Your task to perform on an android device: Show the shopping cart on walmart. Add razer kraken to the cart on walmart, then select checkout. Image 0: 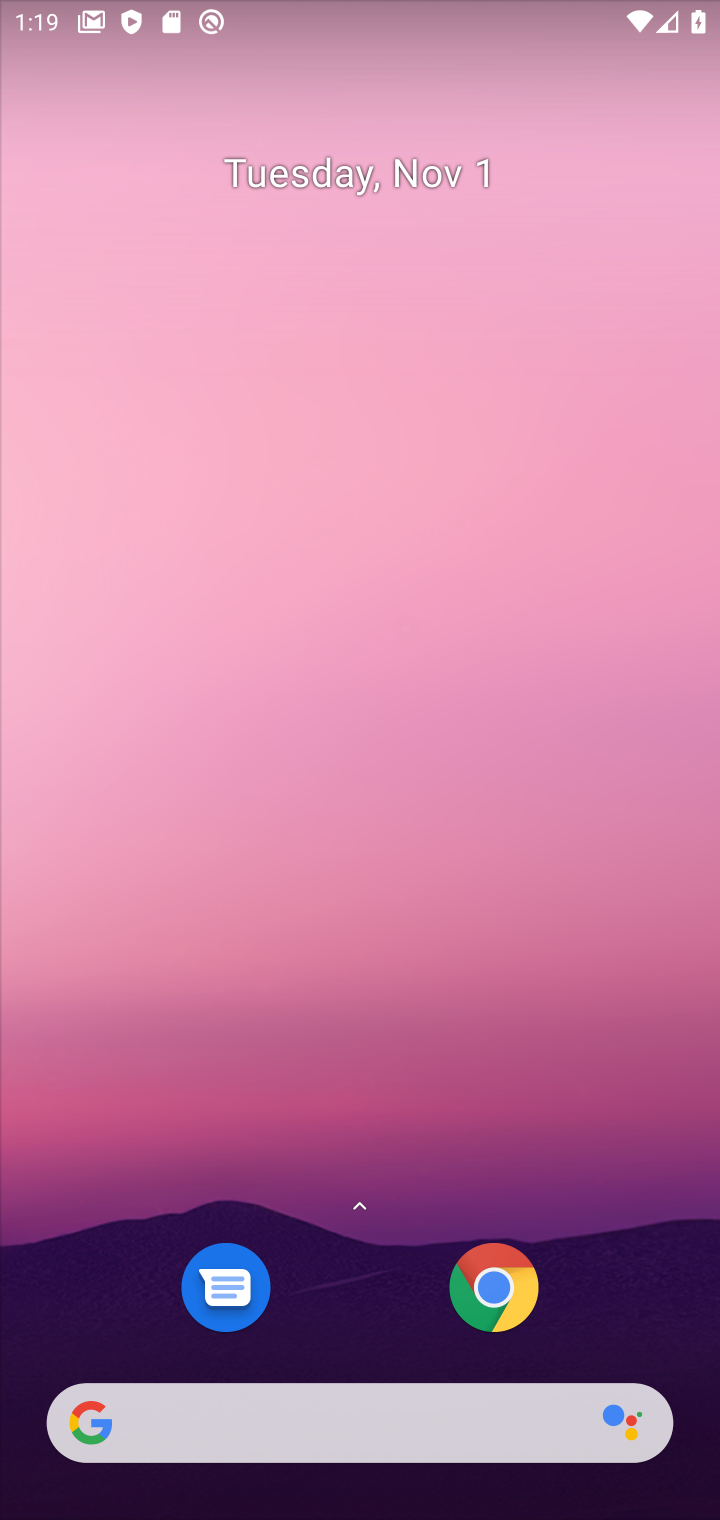
Step 0: drag from (401, 1218) to (565, 344)
Your task to perform on an android device: Show the shopping cart on walmart. Add razer kraken to the cart on walmart, then select checkout. Image 1: 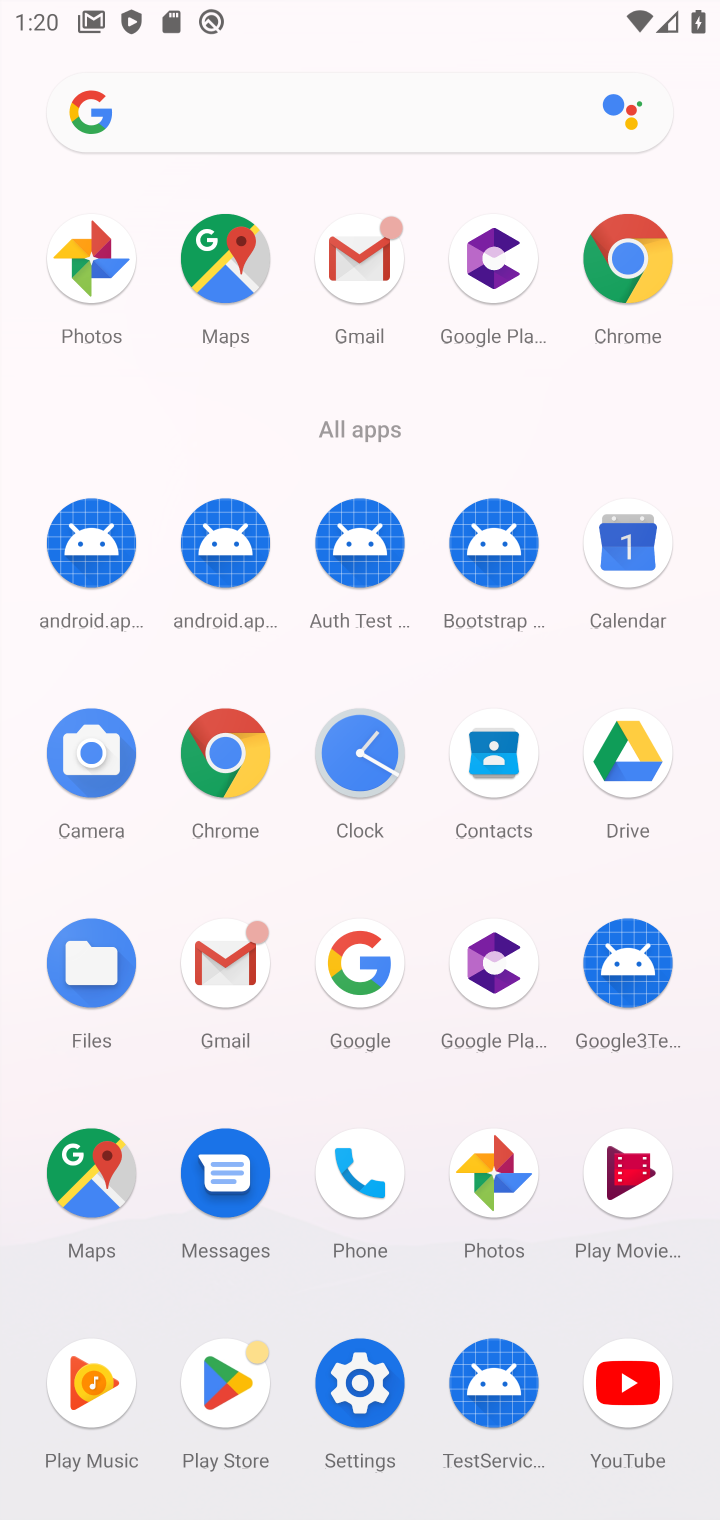
Step 1: click (231, 756)
Your task to perform on an android device: Show the shopping cart on walmart. Add razer kraken to the cart on walmart, then select checkout. Image 2: 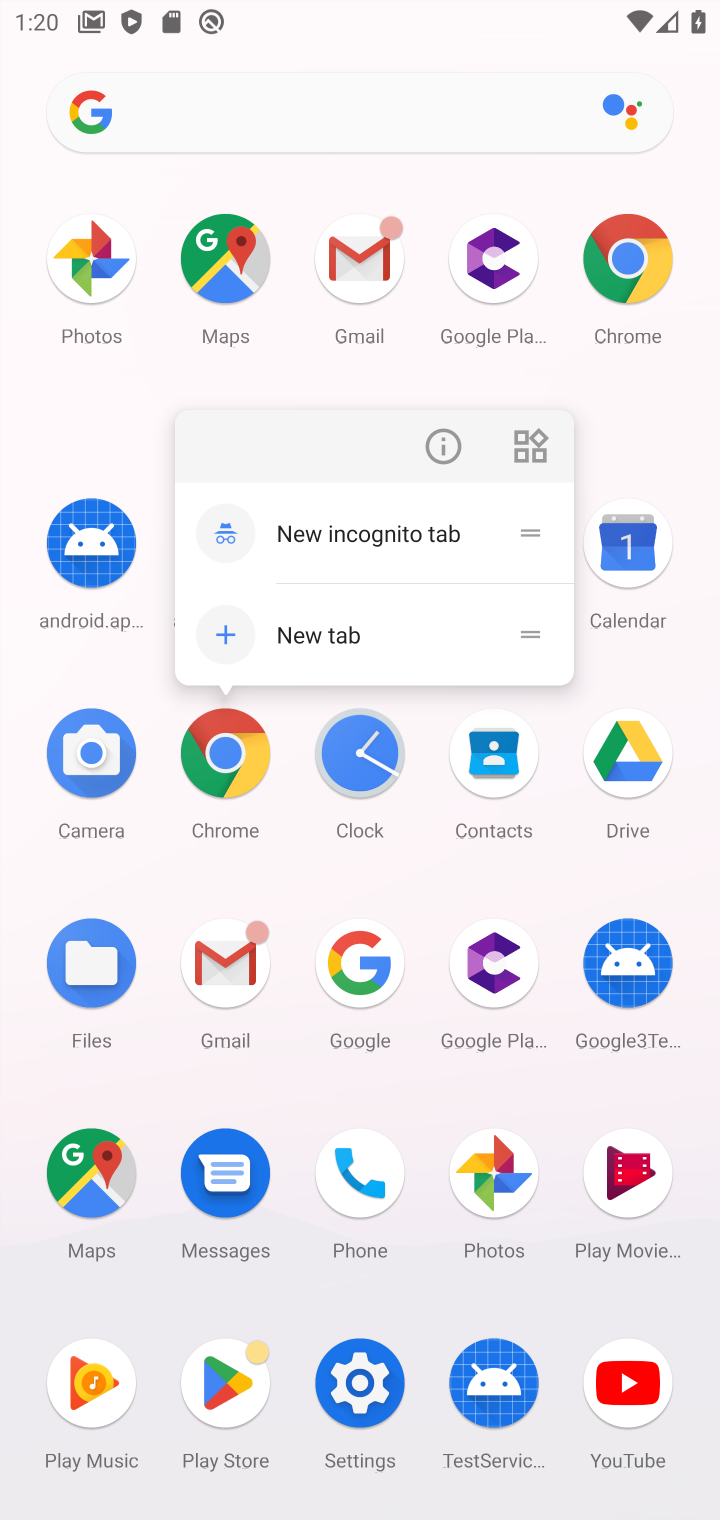
Step 2: click (221, 757)
Your task to perform on an android device: Show the shopping cart on walmart. Add razer kraken to the cart on walmart, then select checkout. Image 3: 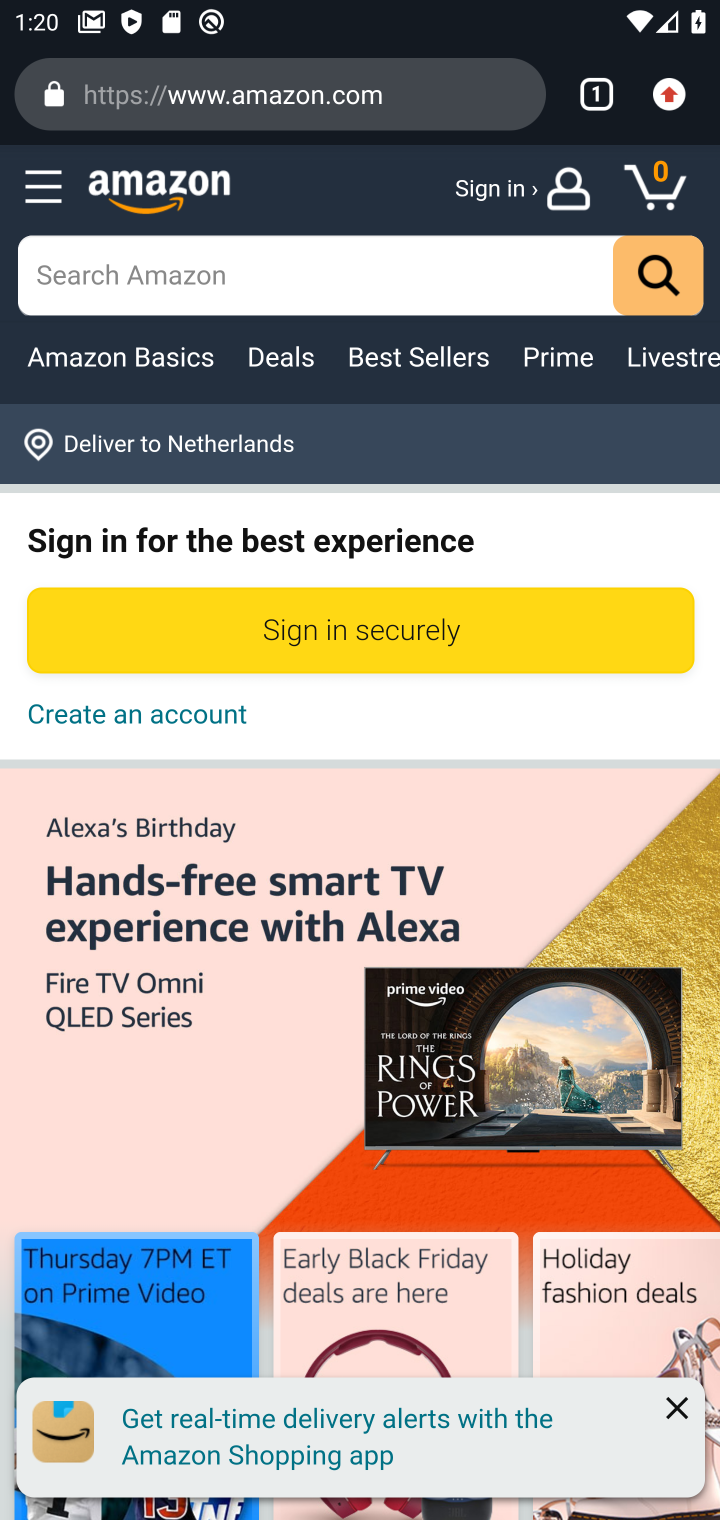
Step 3: click (358, 120)
Your task to perform on an android device: Show the shopping cart on walmart. Add razer kraken to the cart on walmart, then select checkout. Image 4: 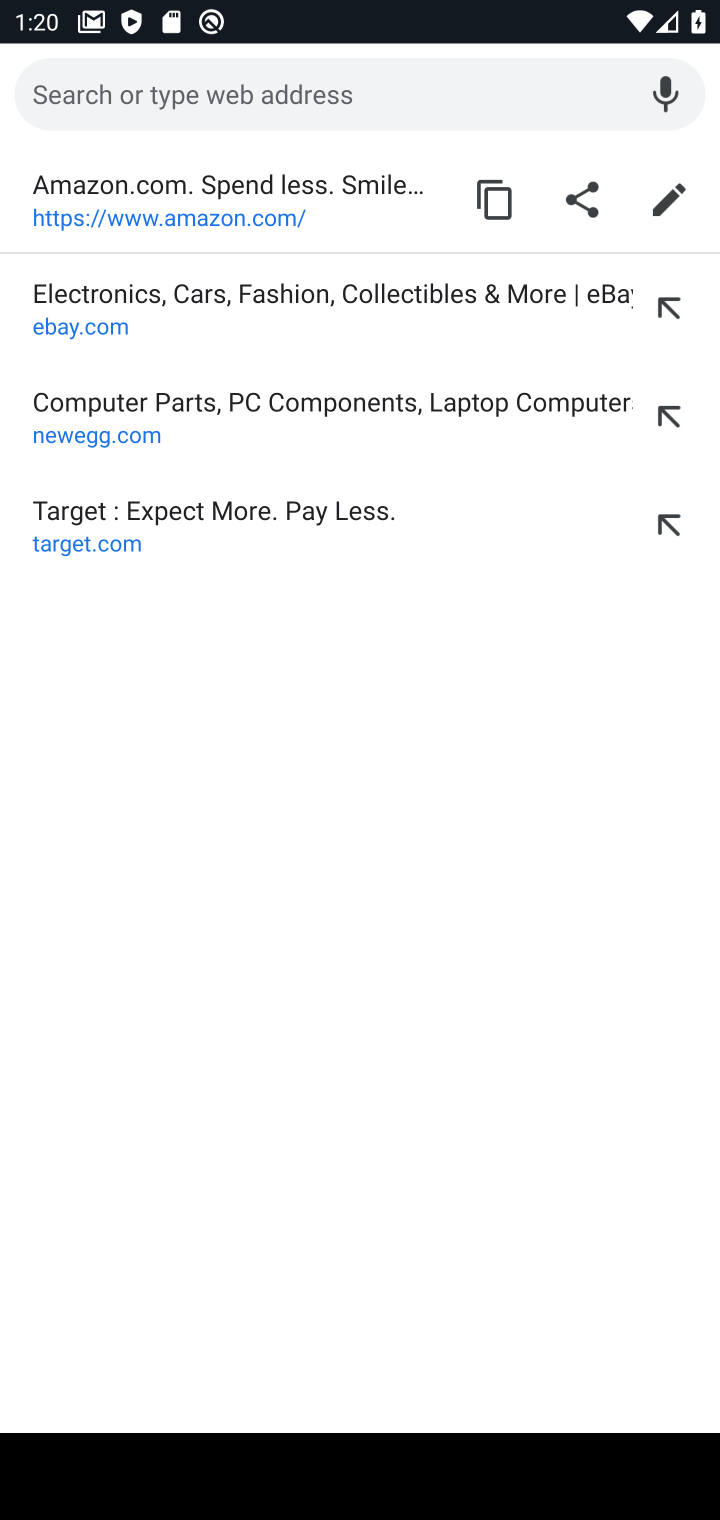
Step 4: type "walmart.com"
Your task to perform on an android device: Show the shopping cart on walmart. Add razer kraken to the cart on walmart, then select checkout. Image 5: 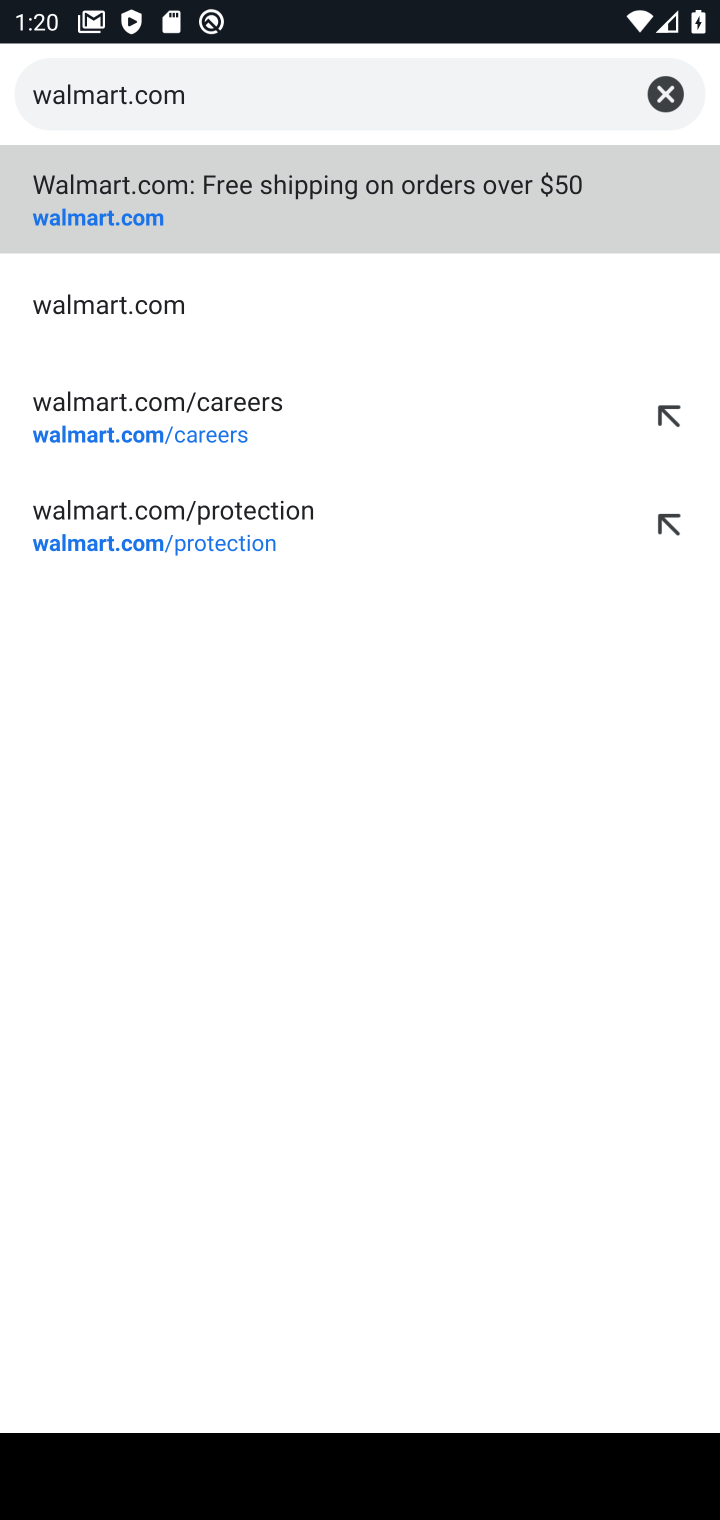
Step 5: click (154, 223)
Your task to perform on an android device: Show the shopping cart on walmart. Add razer kraken to the cart on walmart, then select checkout. Image 6: 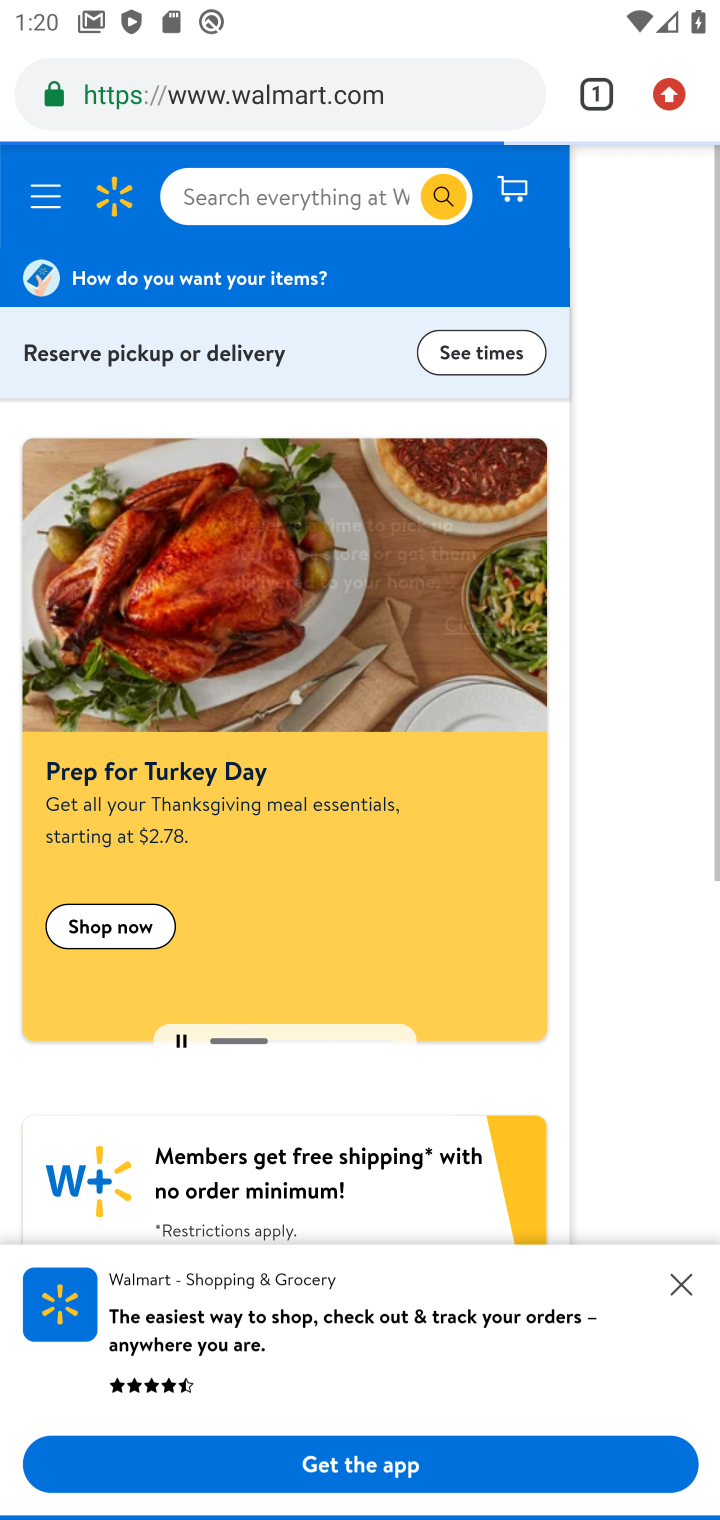
Step 6: click (401, 210)
Your task to perform on an android device: Show the shopping cart on walmart. Add razer kraken to the cart on walmart, then select checkout. Image 7: 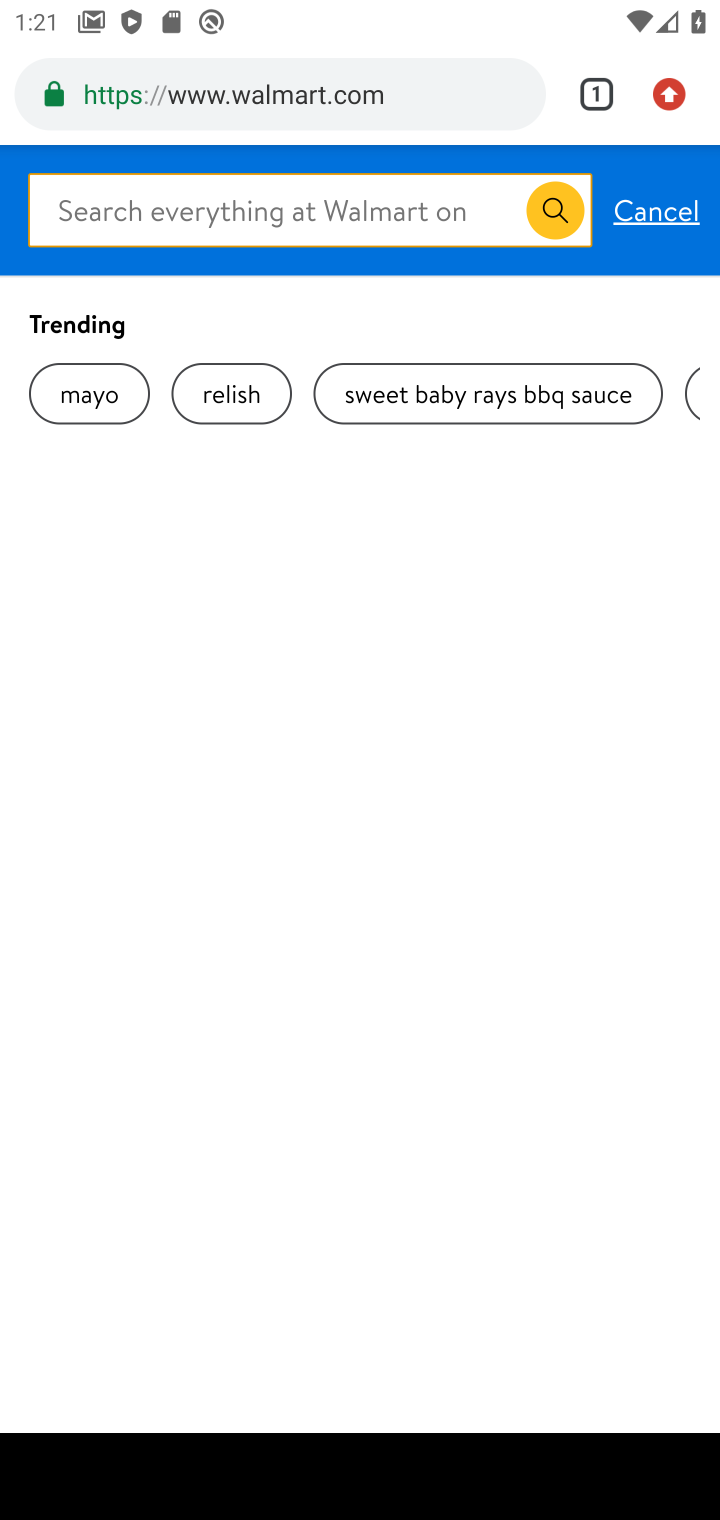
Step 7: type "razer "
Your task to perform on an android device: Show the shopping cart on walmart. Add razer kraken to the cart on walmart, then select checkout. Image 8: 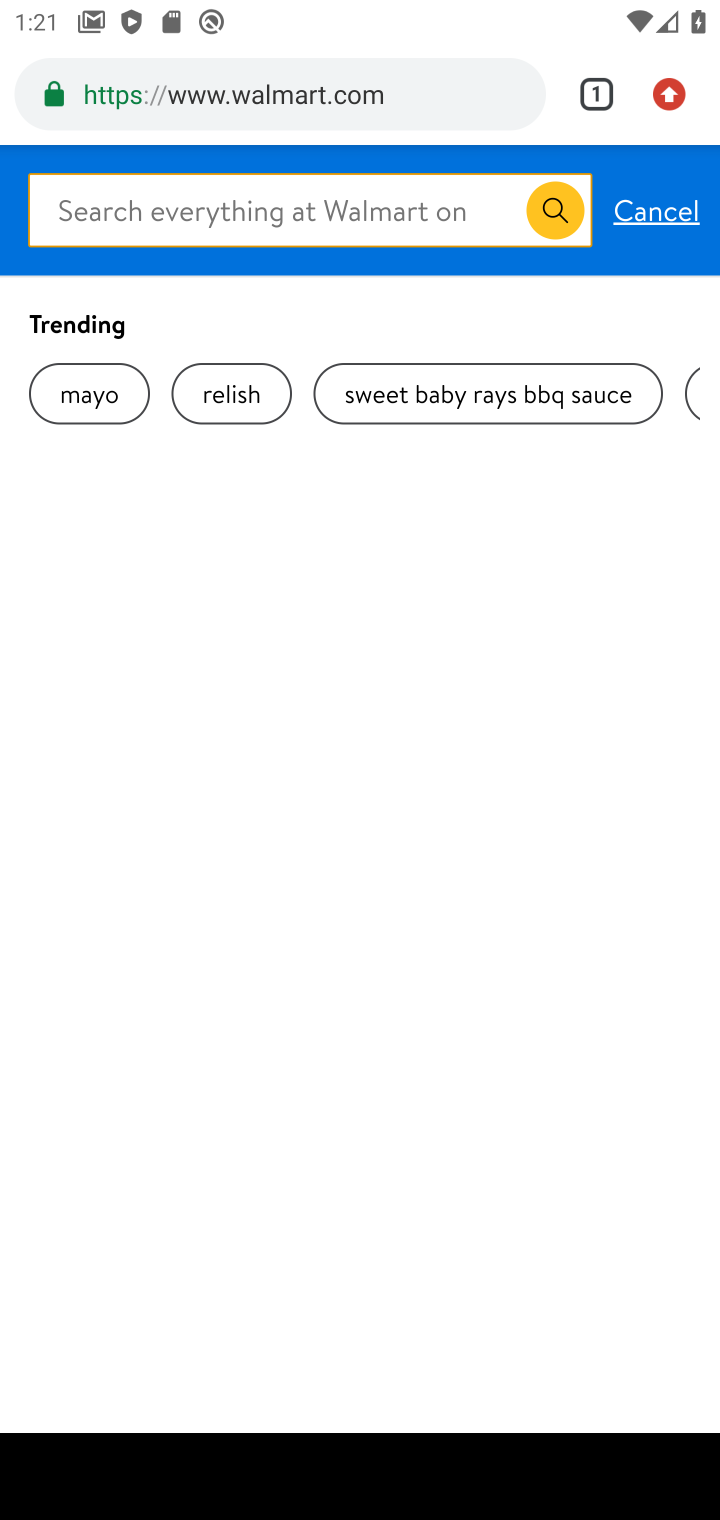
Step 8: click (628, 209)
Your task to perform on an android device: Show the shopping cart on walmart. Add razer kraken to the cart on walmart, then select checkout. Image 9: 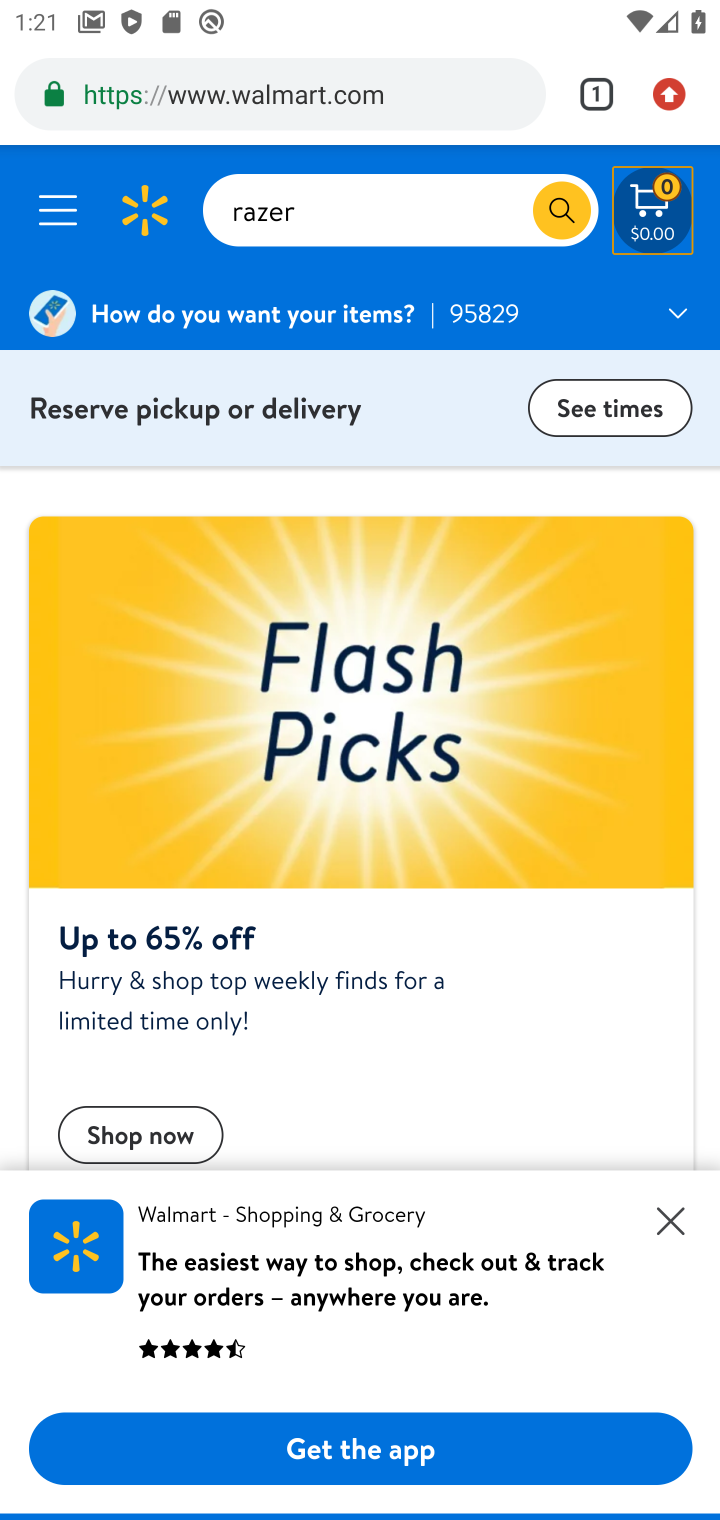
Step 9: click (648, 220)
Your task to perform on an android device: Show the shopping cart on walmart. Add razer kraken to the cart on walmart, then select checkout. Image 10: 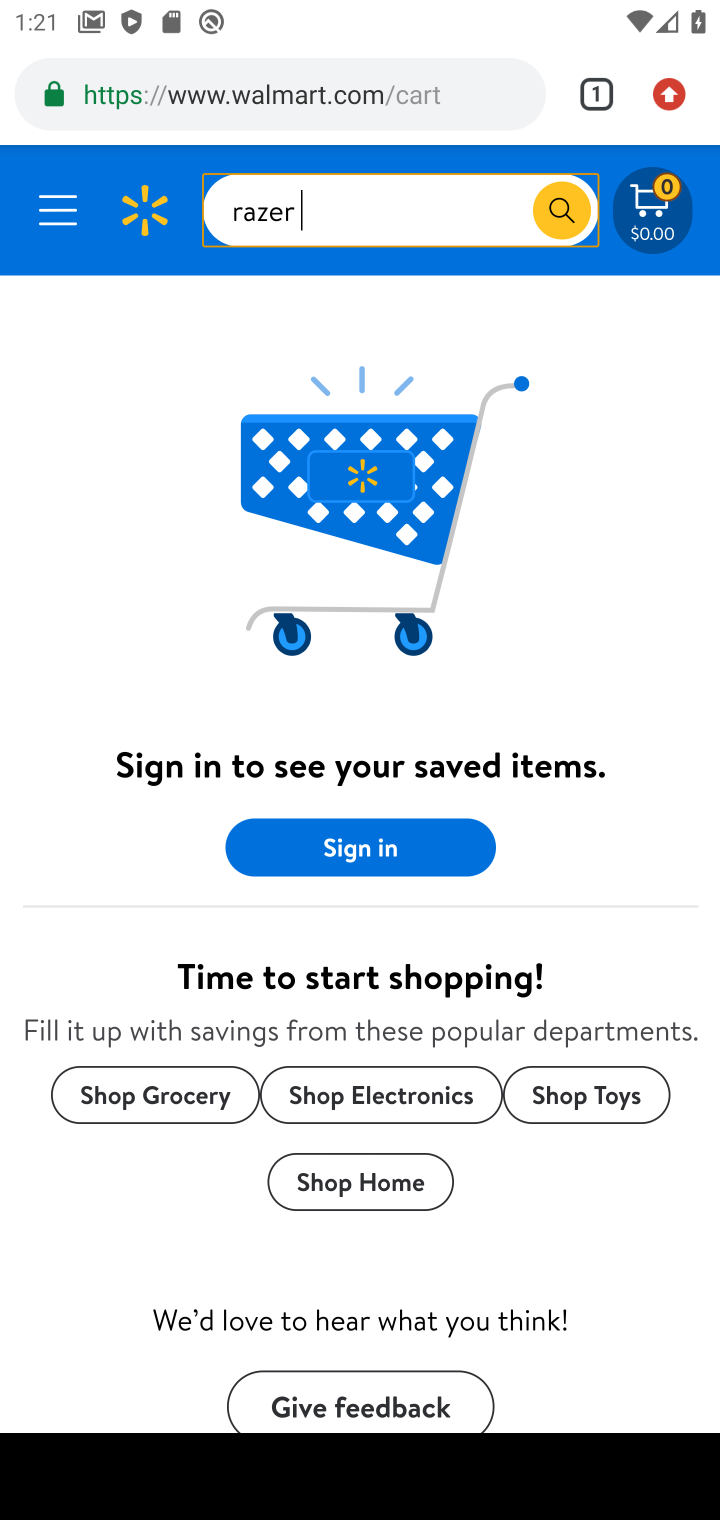
Step 10: click (452, 201)
Your task to perform on an android device: Show the shopping cart on walmart. Add razer kraken to the cart on walmart, then select checkout. Image 11: 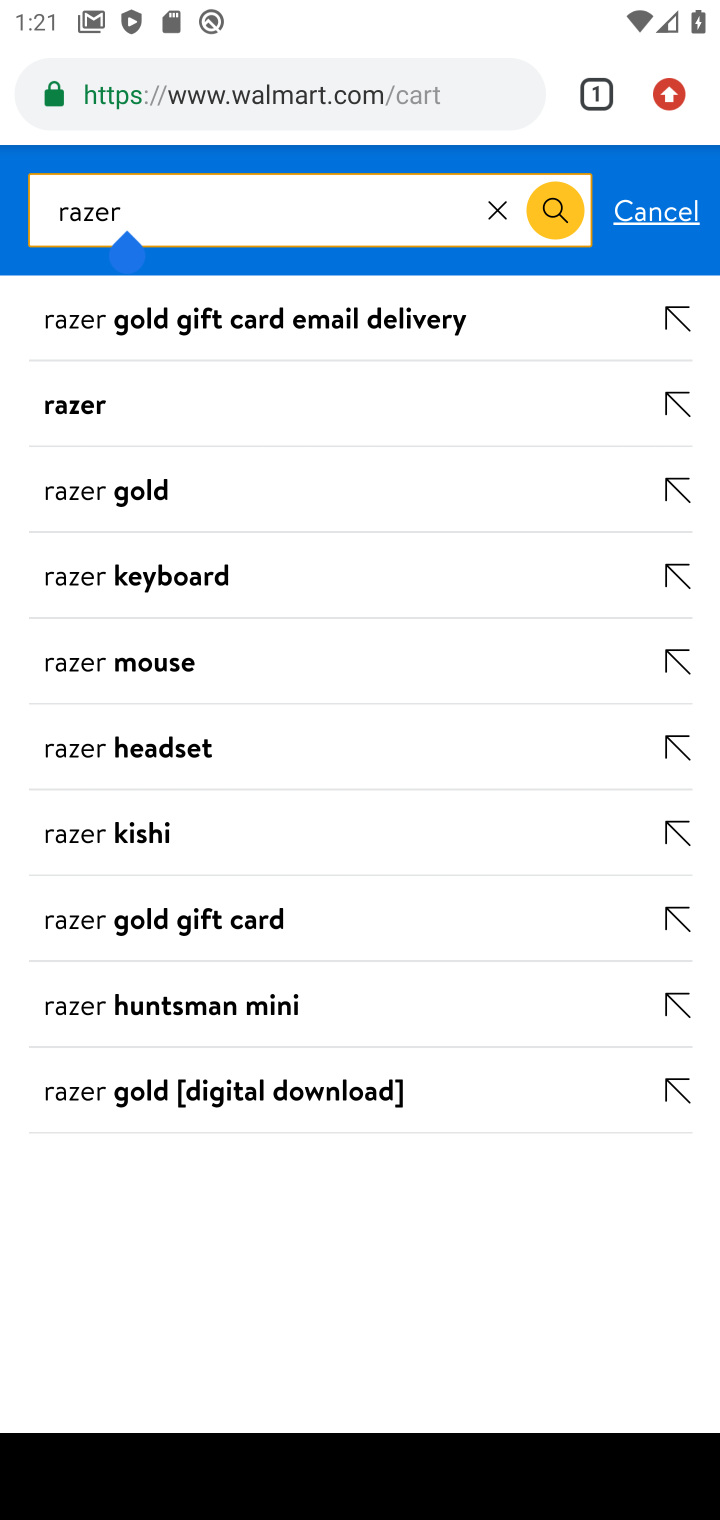
Step 11: type "kraken"
Your task to perform on an android device: Show the shopping cart on walmart. Add razer kraken to the cart on walmart, then select checkout. Image 12: 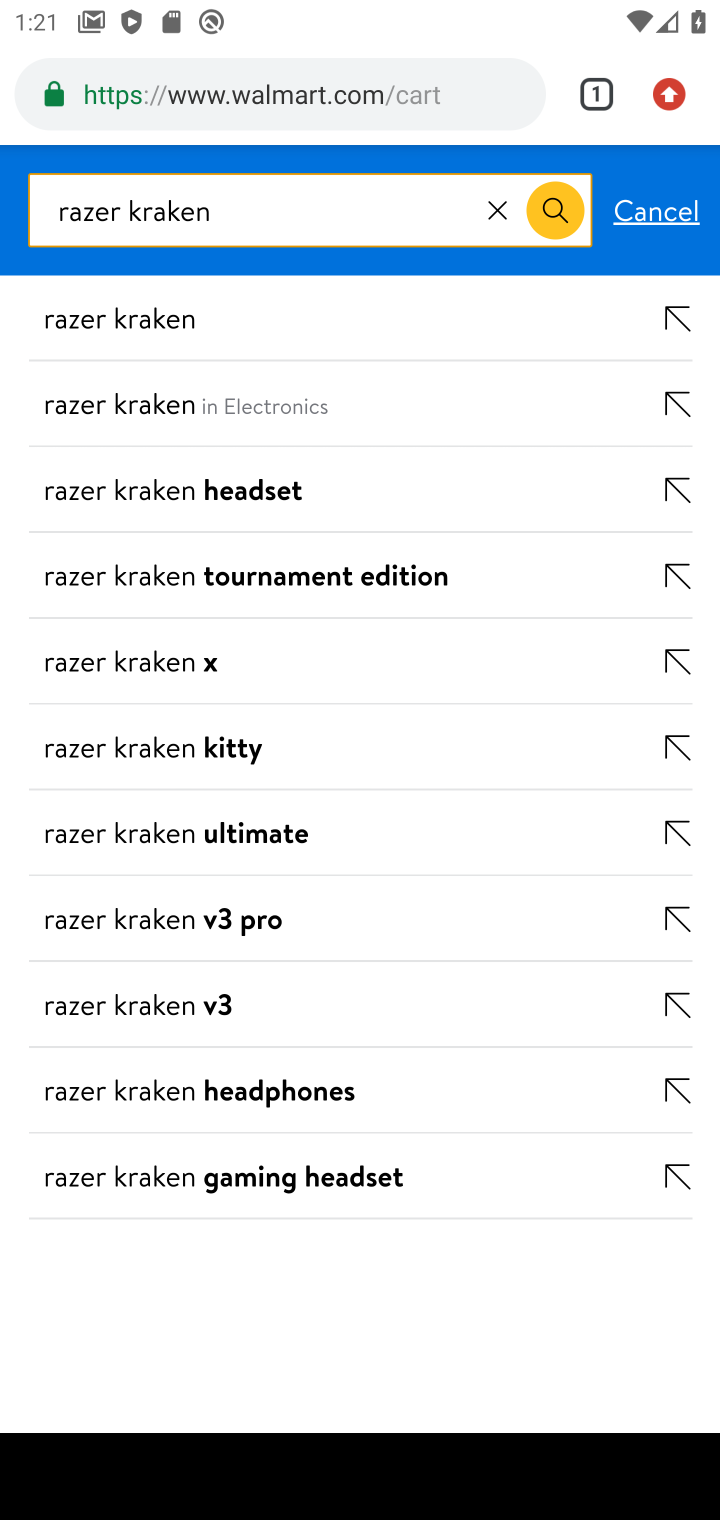
Step 12: press enter
Your task to perform on an android device: Show the shopping cart on walmart. Add razer kraken to the cart on walmart, then select checkout. Image 13: 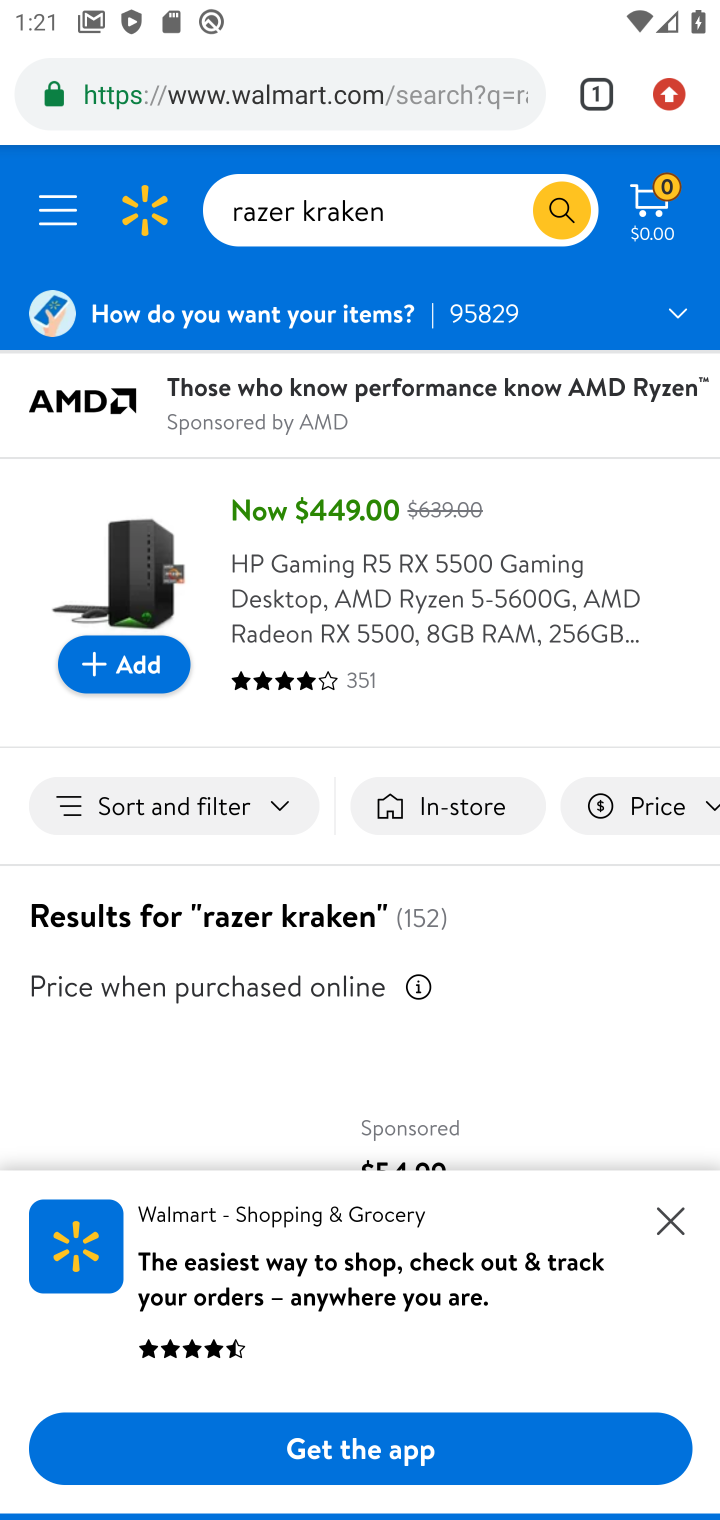
Step 13: drag from (451, 1009) to (566, 214)
Your task to perform on an android device: Show the shopping cart on walmart. Add razer kraken to the cart on walmart, then select checkout. Image 14: 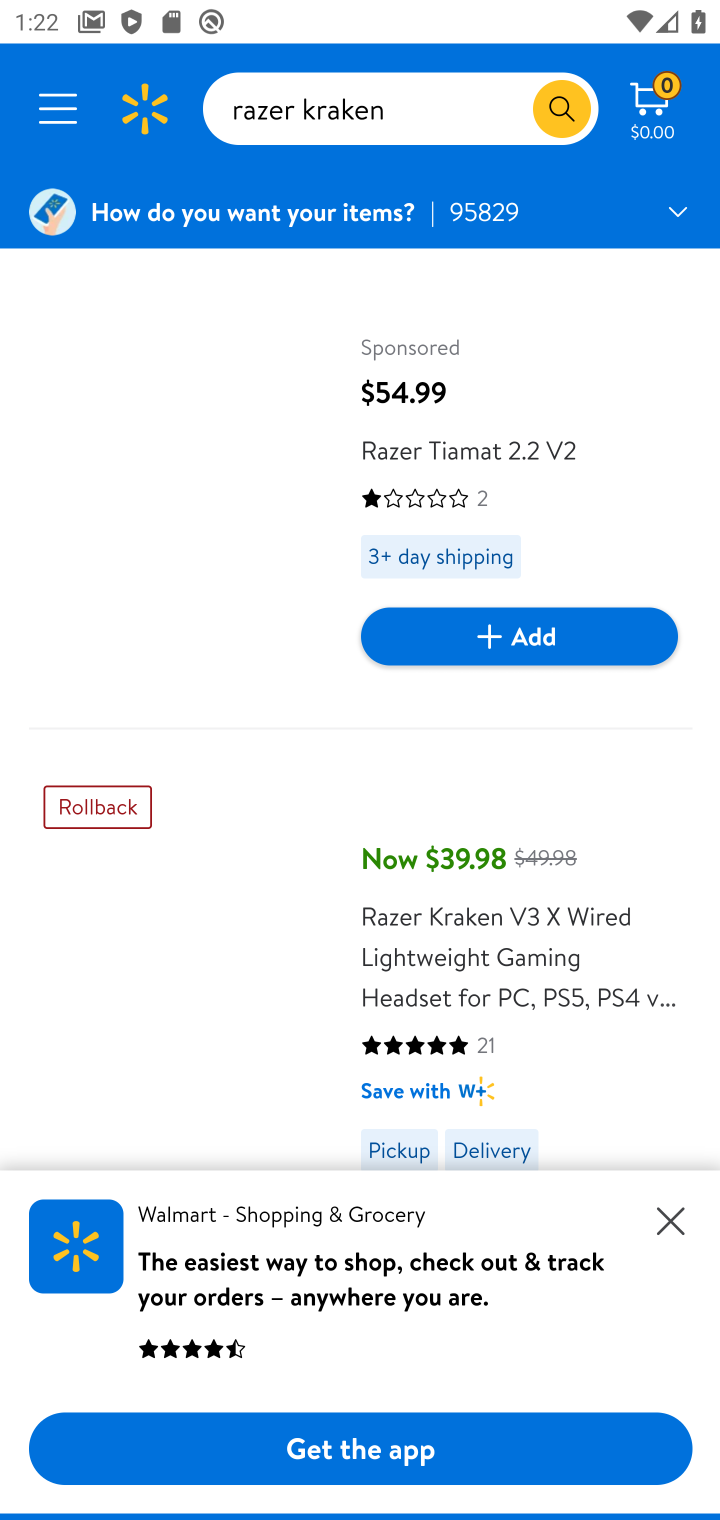
Step 14: click (459, 967)
Your task to perform on an android device: Show the shopping cart on walmart. Add razer kraken to the cart on walmart, then select checkout. Image 15: 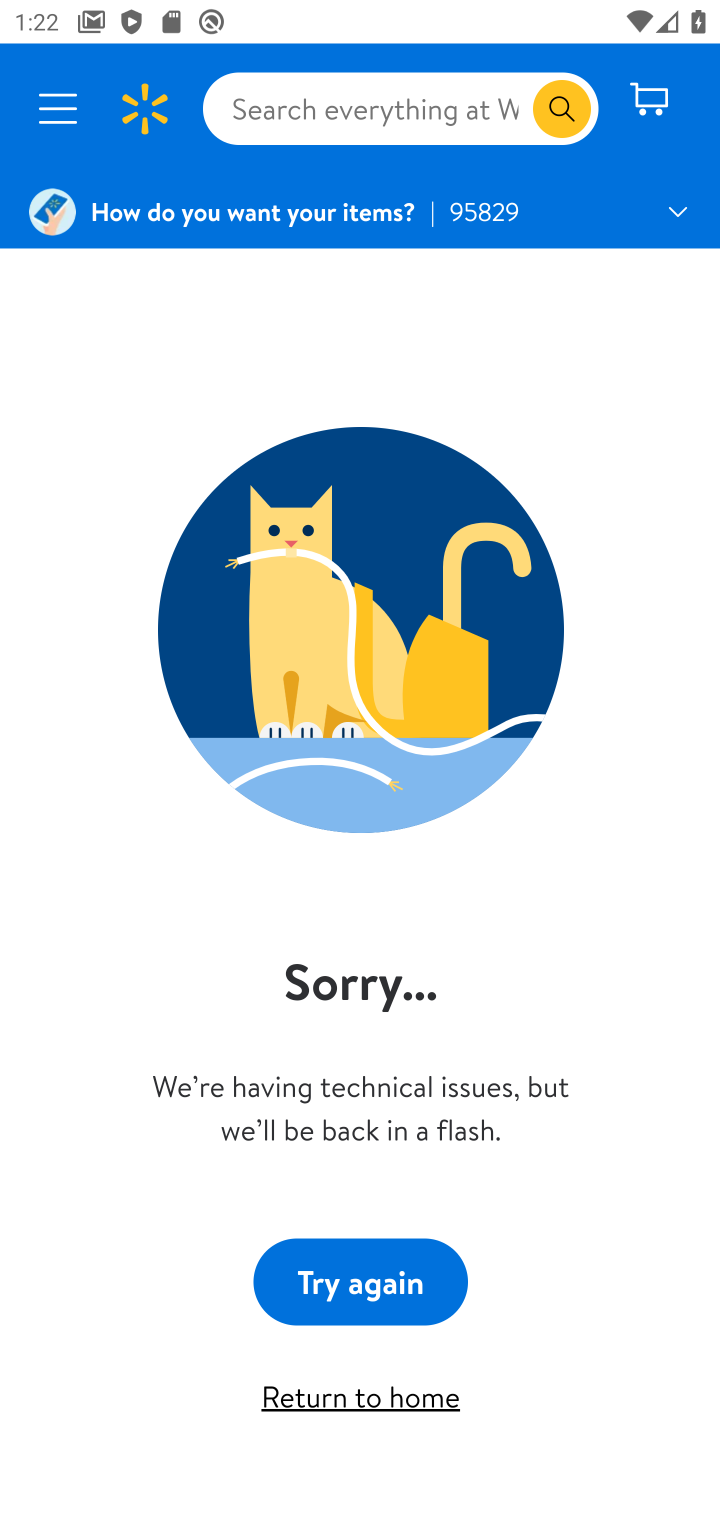
Step 15: task complete